Your task to perform on an android device: What's the news in Colombia? Image 0: 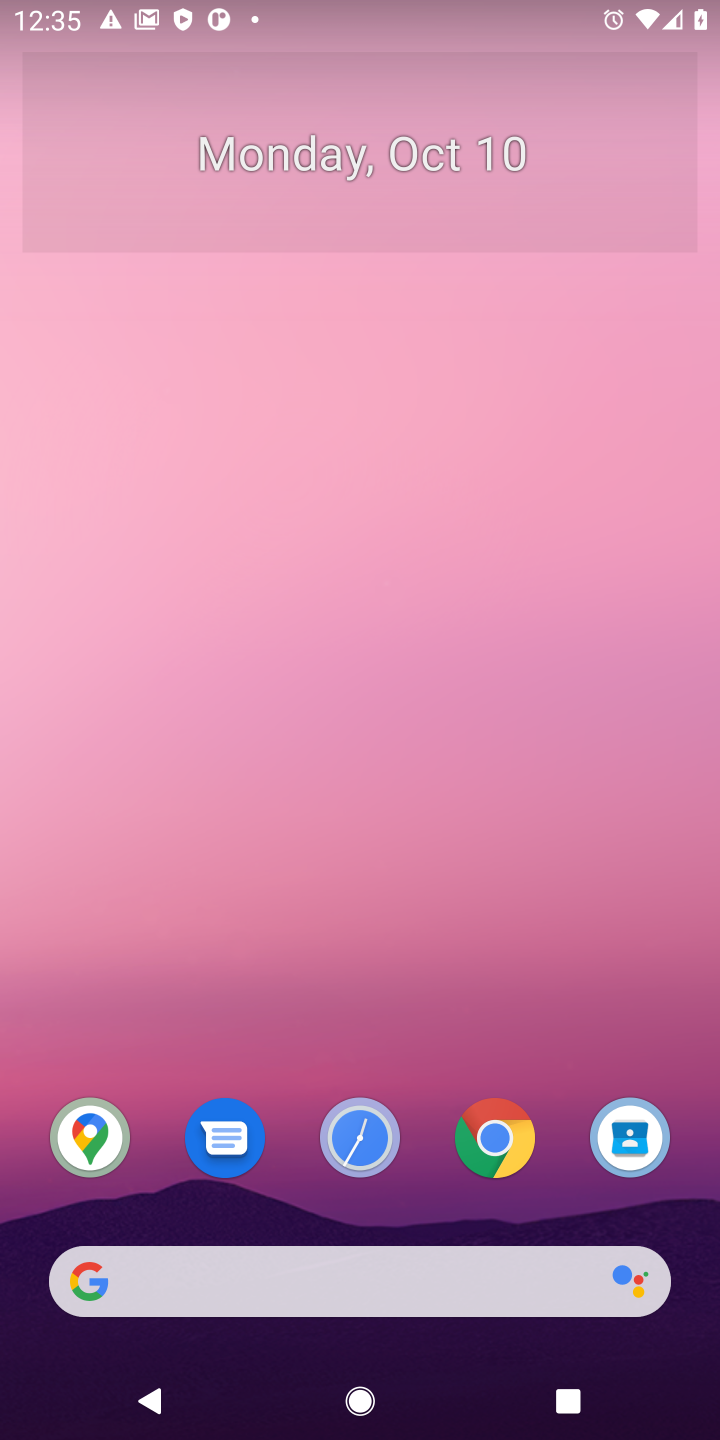
Step 0: click (507, 1150)
Your task to perform on an android device: What's the news in Colombia? Image 1: 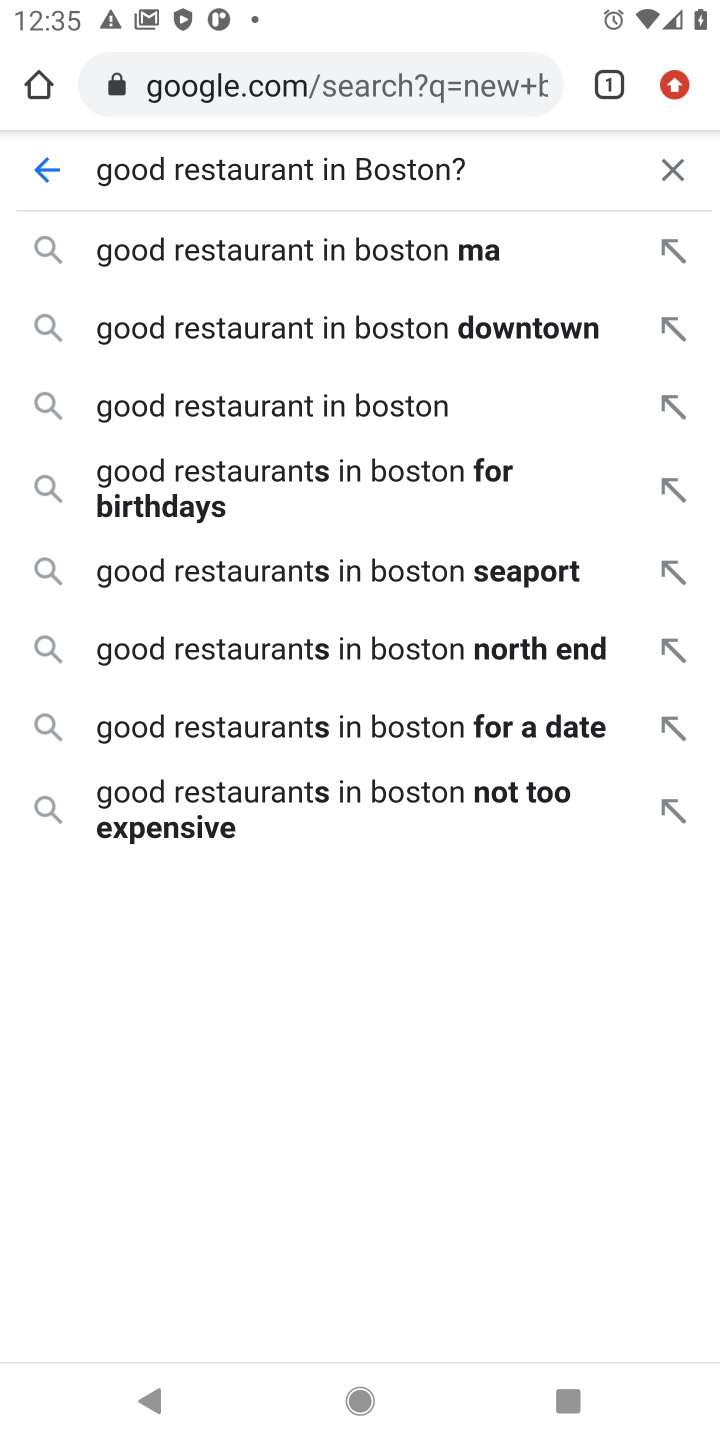
Step 1: click (666, 164)
Your task to perform on an android device: What's the news in Colombia? Image 2: 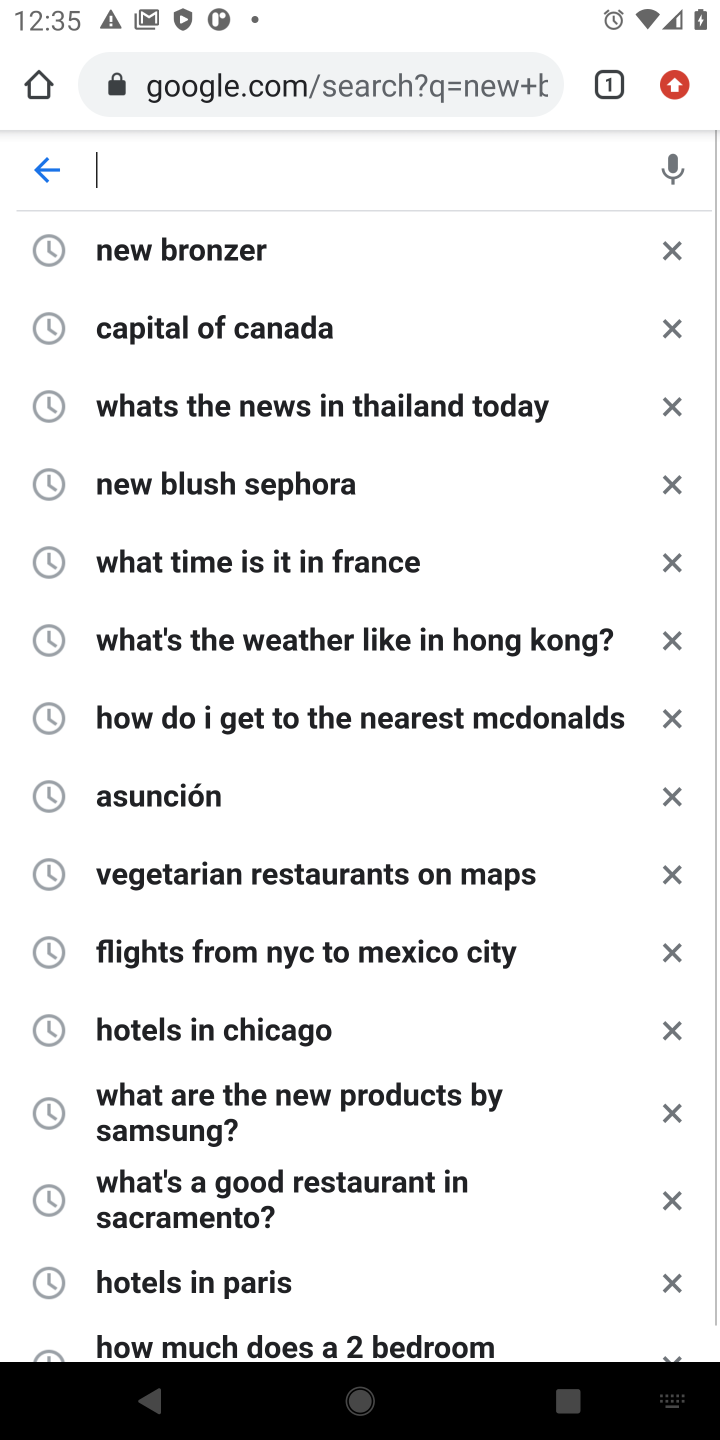
Step 2: type "What's the news in Colombia?"
Your task to perform on an android device: What's the news in Colombia? Image 3: 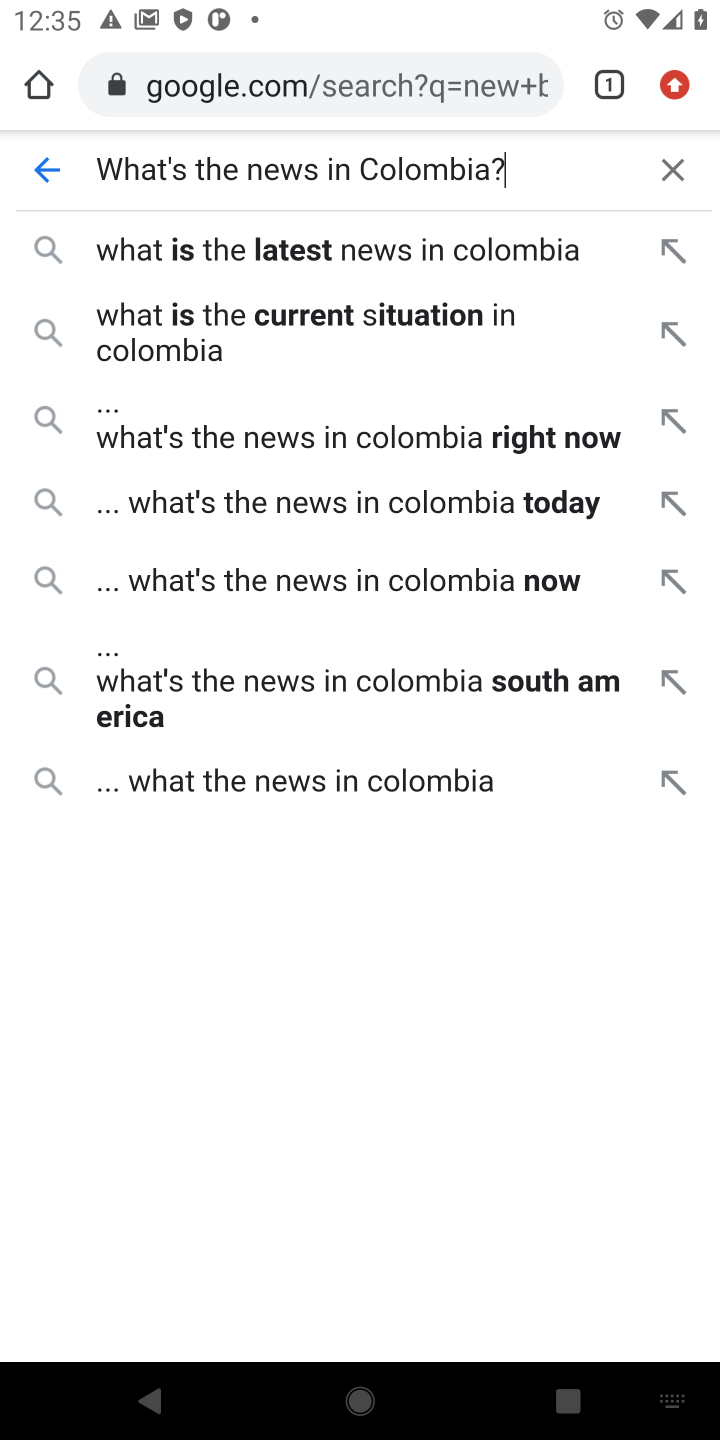
Step 3: press enter
Your task to perform on an android device: What's the news in Colombia? Image 4: 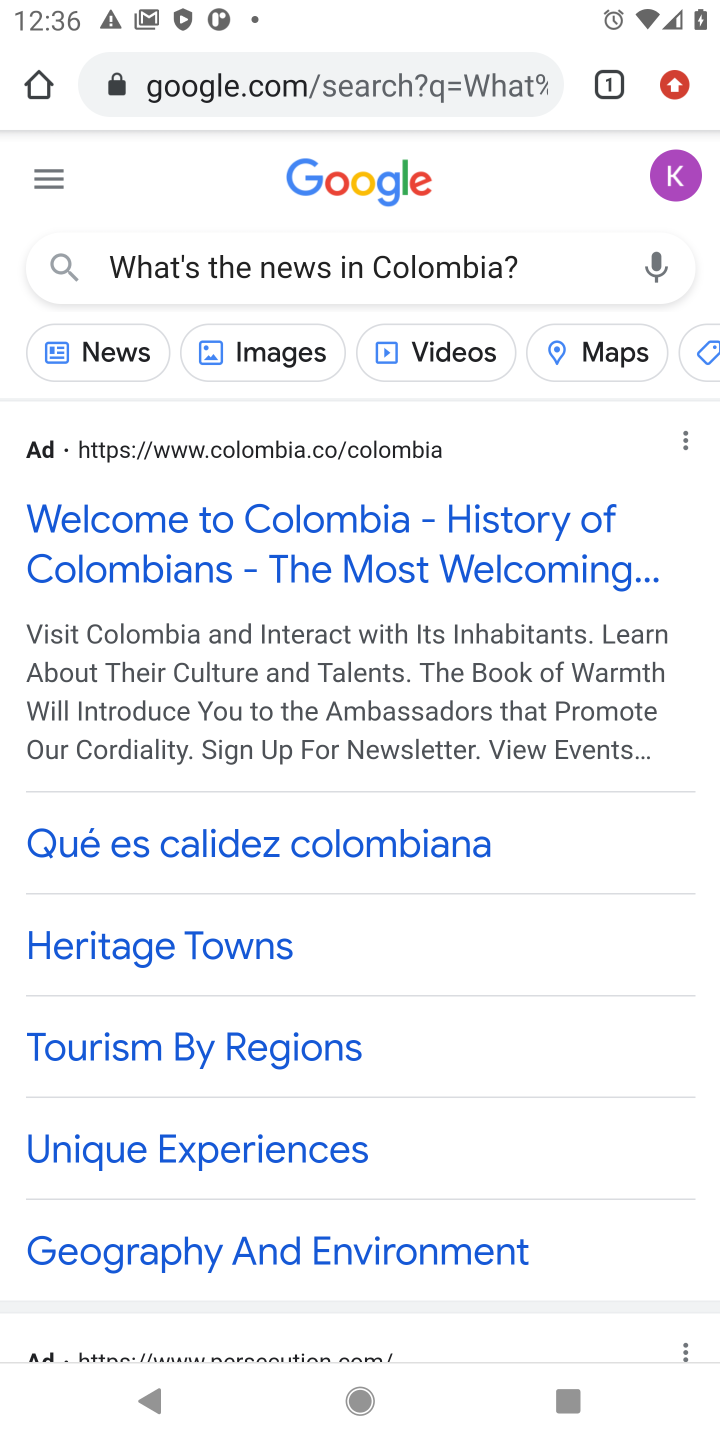
Step 4: click (126, 348)
Your task to perform on an android device: What's the news in Colombia? Image 5: 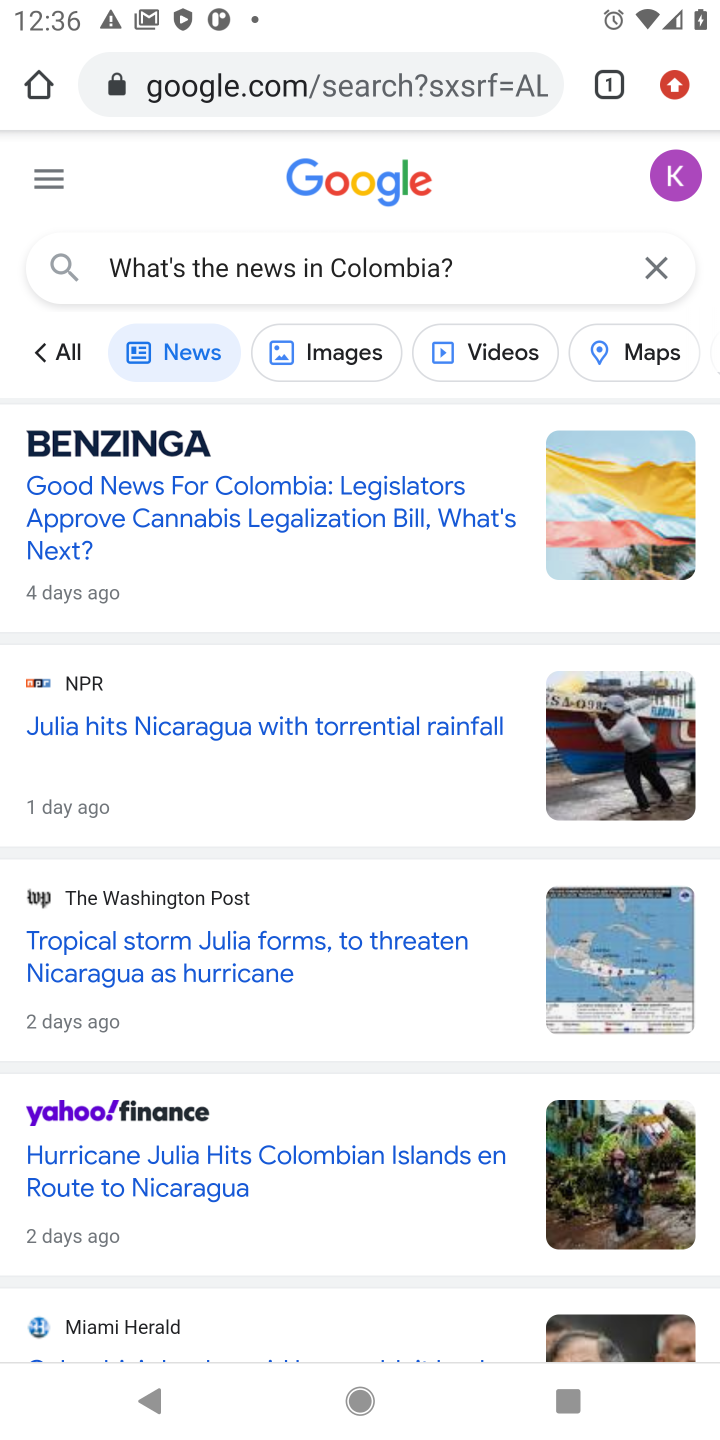
Step 5: task complete